Your task to perform on an android device: see sites visited before in the chrome app Image 0: 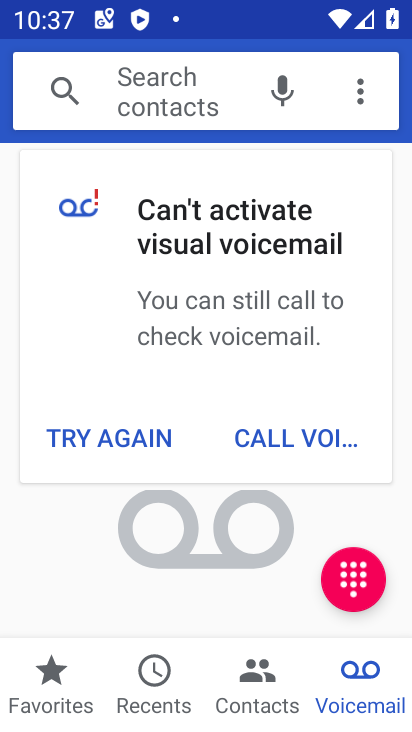
Step 0: press home button
Your task to perform on an android device: see sites visited before in the chrome app Image 1: 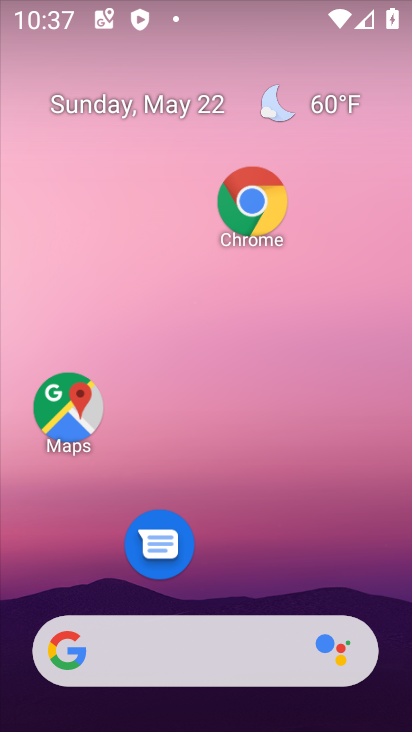
Step 1: click (257, 199)
Your task to perform on an android device: see sites visited before in the chrome app Image 2: 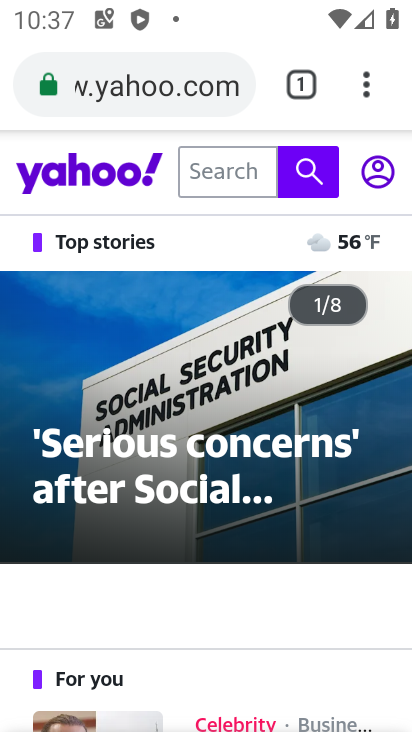
Step 2: click (358, 89)
Your task to perform on an android device: see sites visited before in the chrome app Image 3: 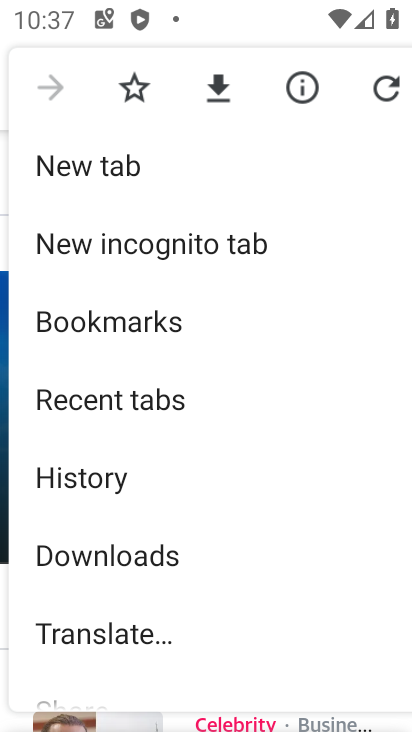
Step 3: click (119, 475)
Your task to perform on an android device: see sites visited before in the chrome app Image 4: 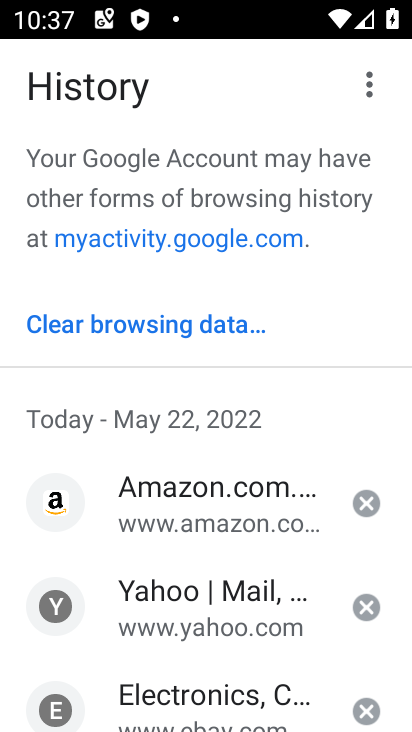
Step 4: task complete